Your task to perform on an android device: install app "Yahoo Mail" Image 0: 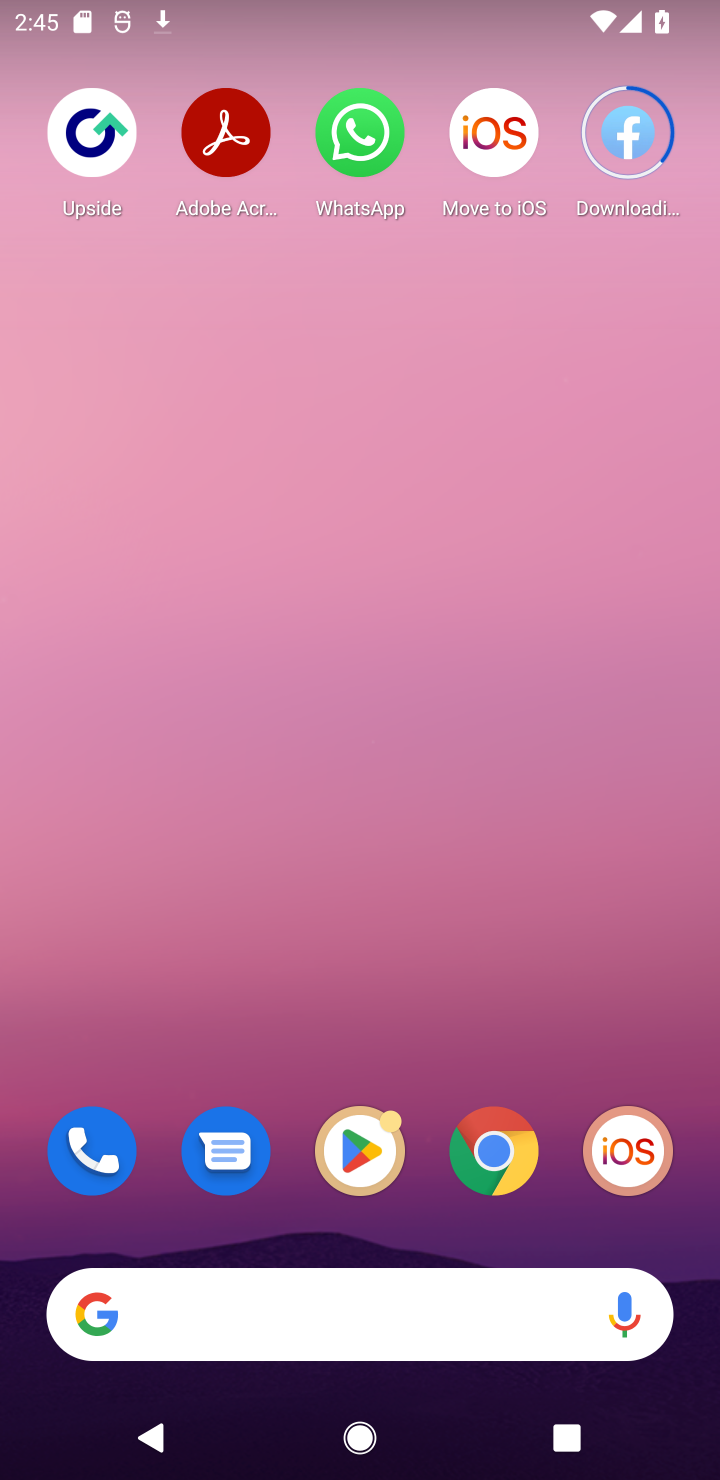
Step 0: click (347, 1161)
Your task to perform on an android device: install app "Yahoo Mail" Image 1: 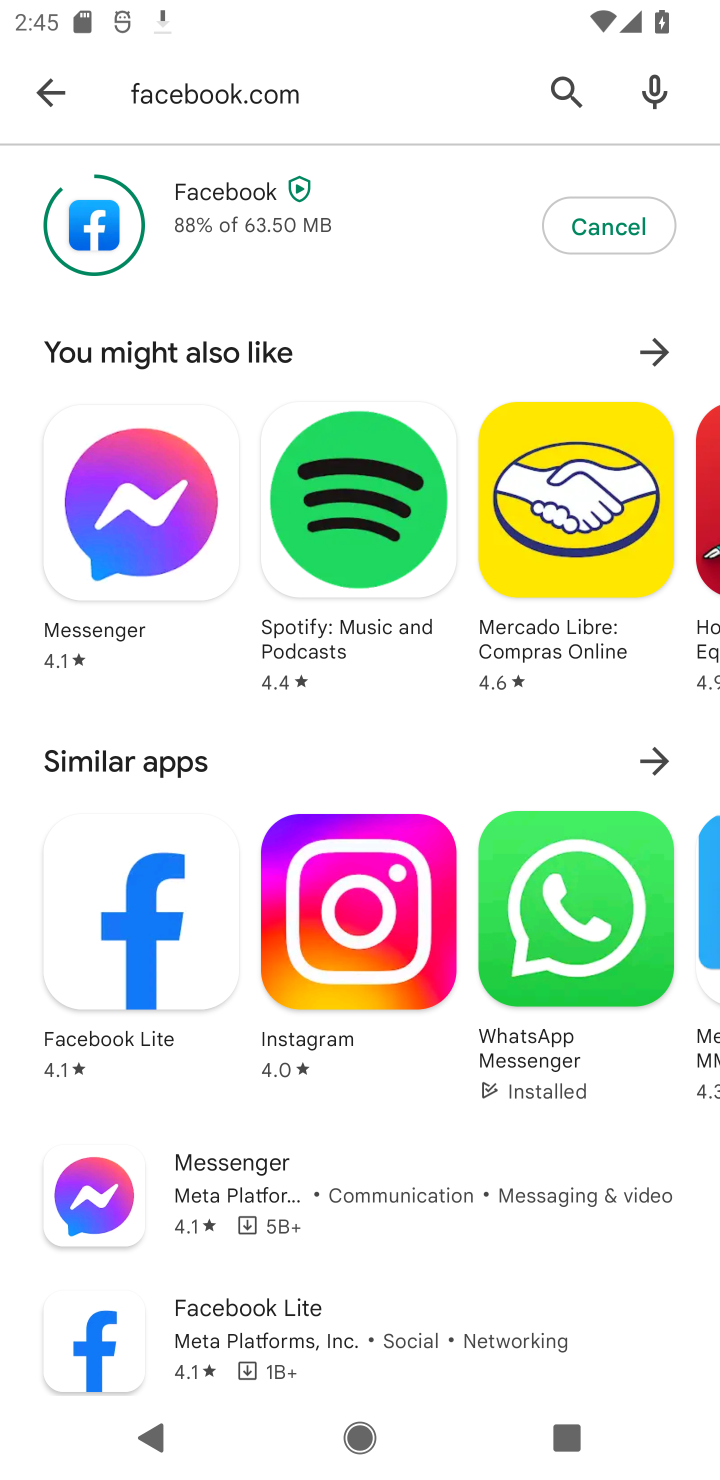
Step 1: click (561, 114)
Your task to perform on an android device: install app "Yahoo Mail" Image 2: 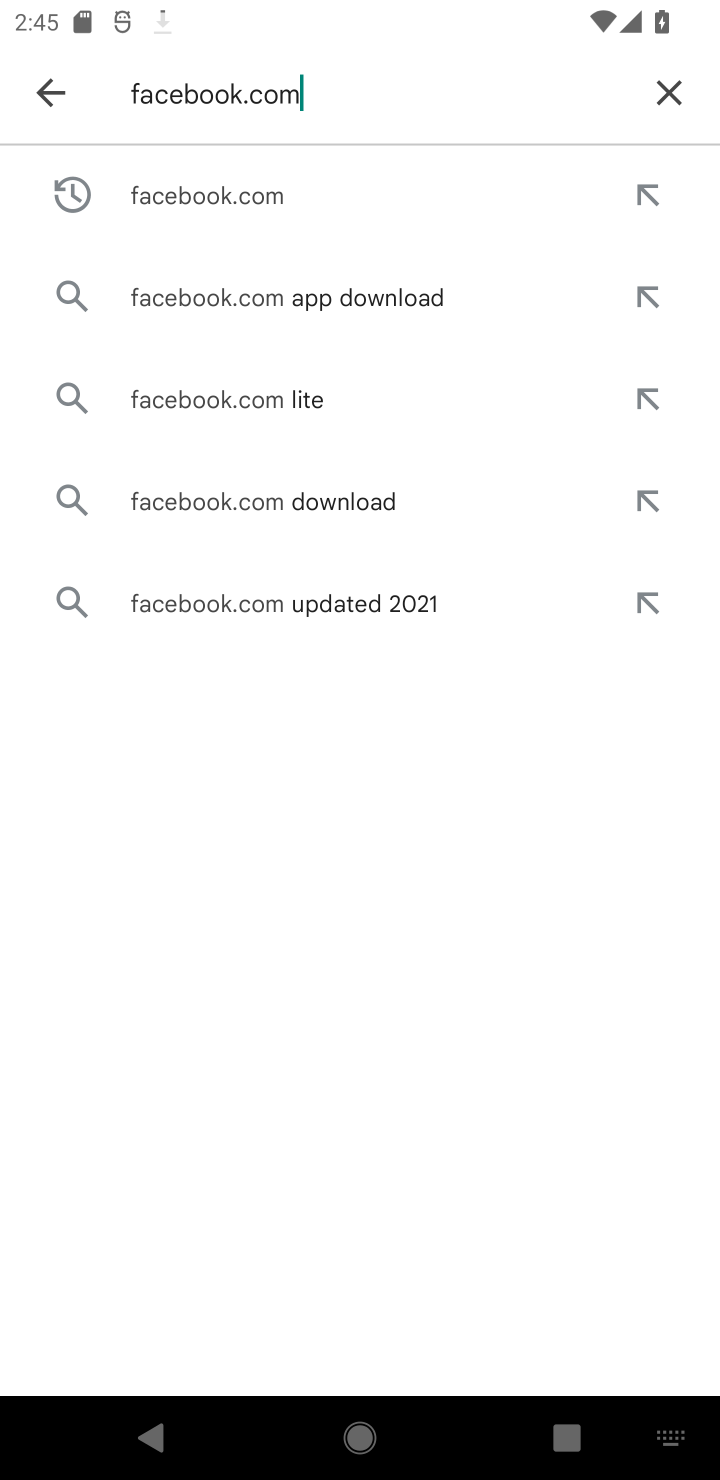
Step 2: click (693, 79)
Your task to perform on an android device: install app "Yahoo Mail" Image 3: 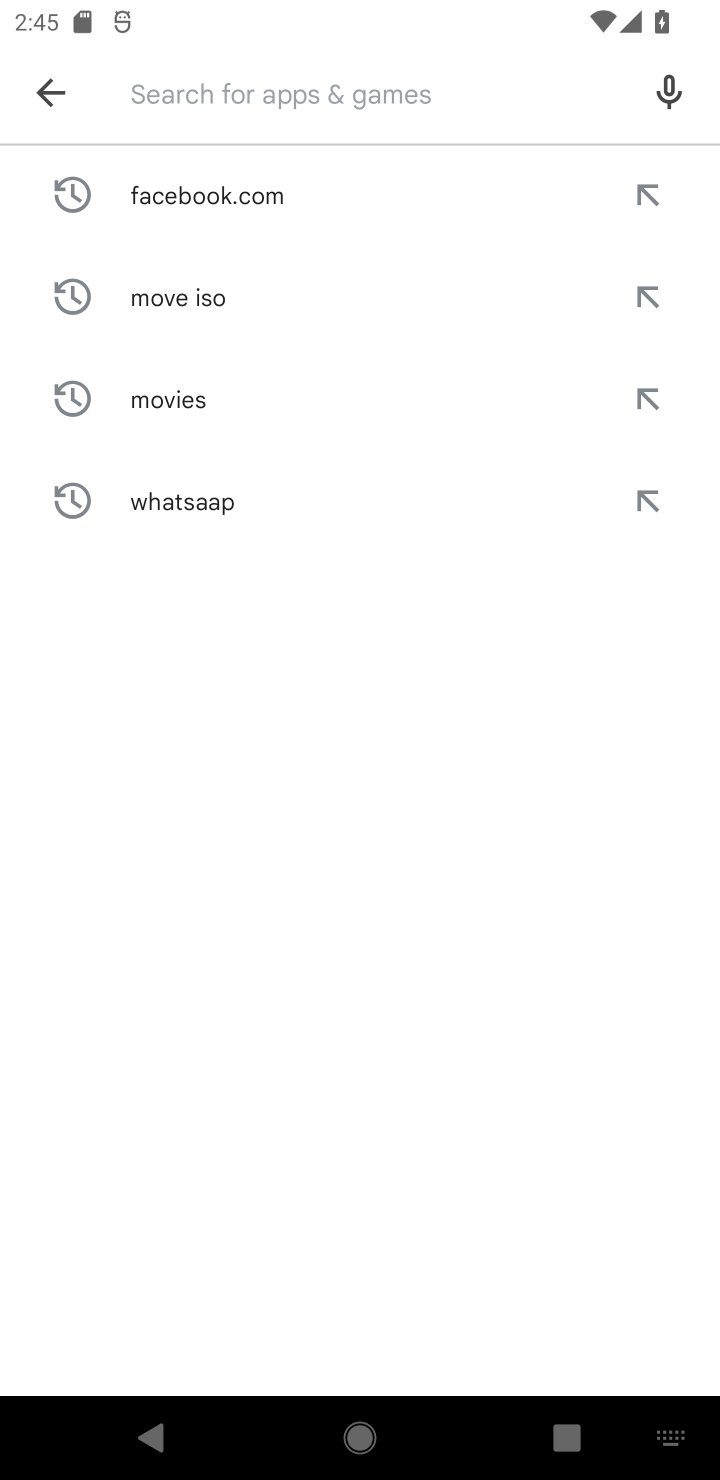
Step 3: type "yahoo mail"
Your task to perform on an android device: install app "Yahoo Mail" Image 4: 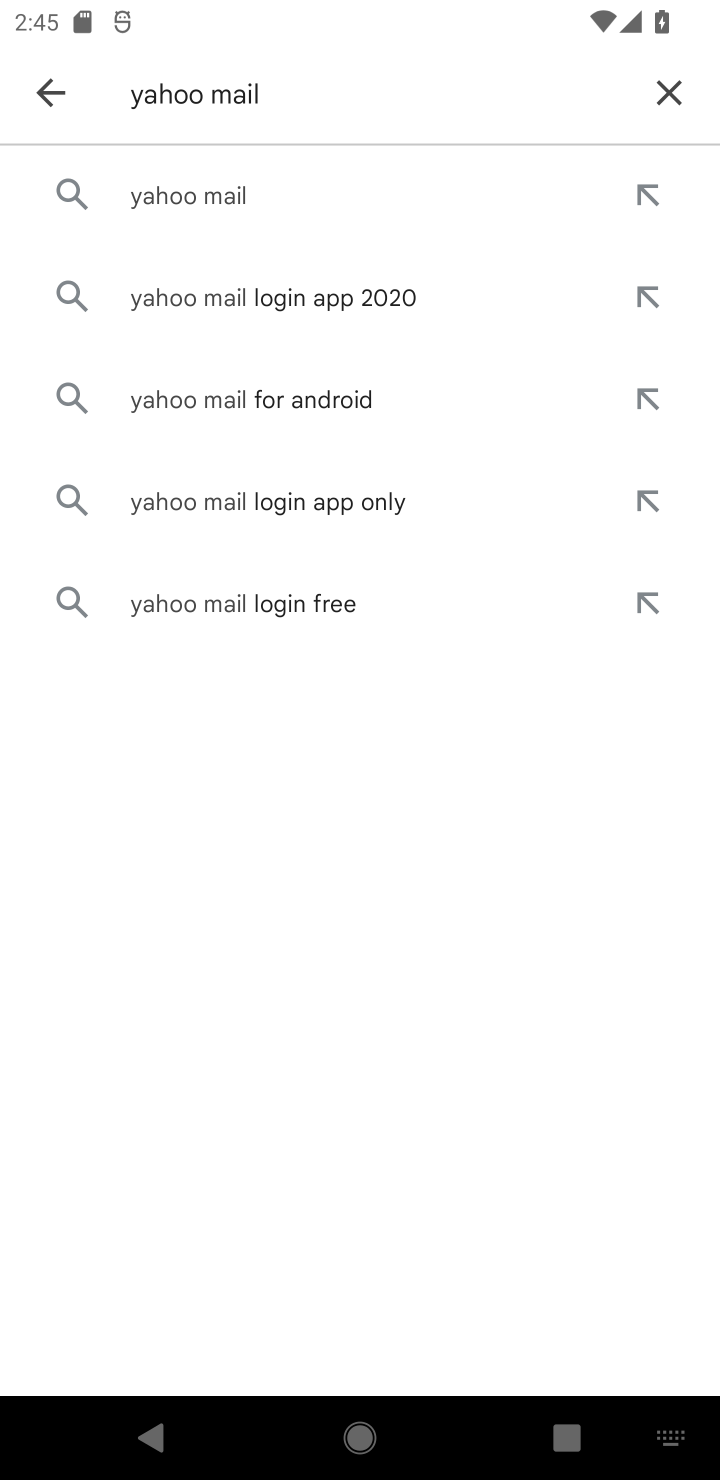
Step 4: click (267, 212)
Your task to perform on an android device: install app "Yahoo Mail" Image 5: 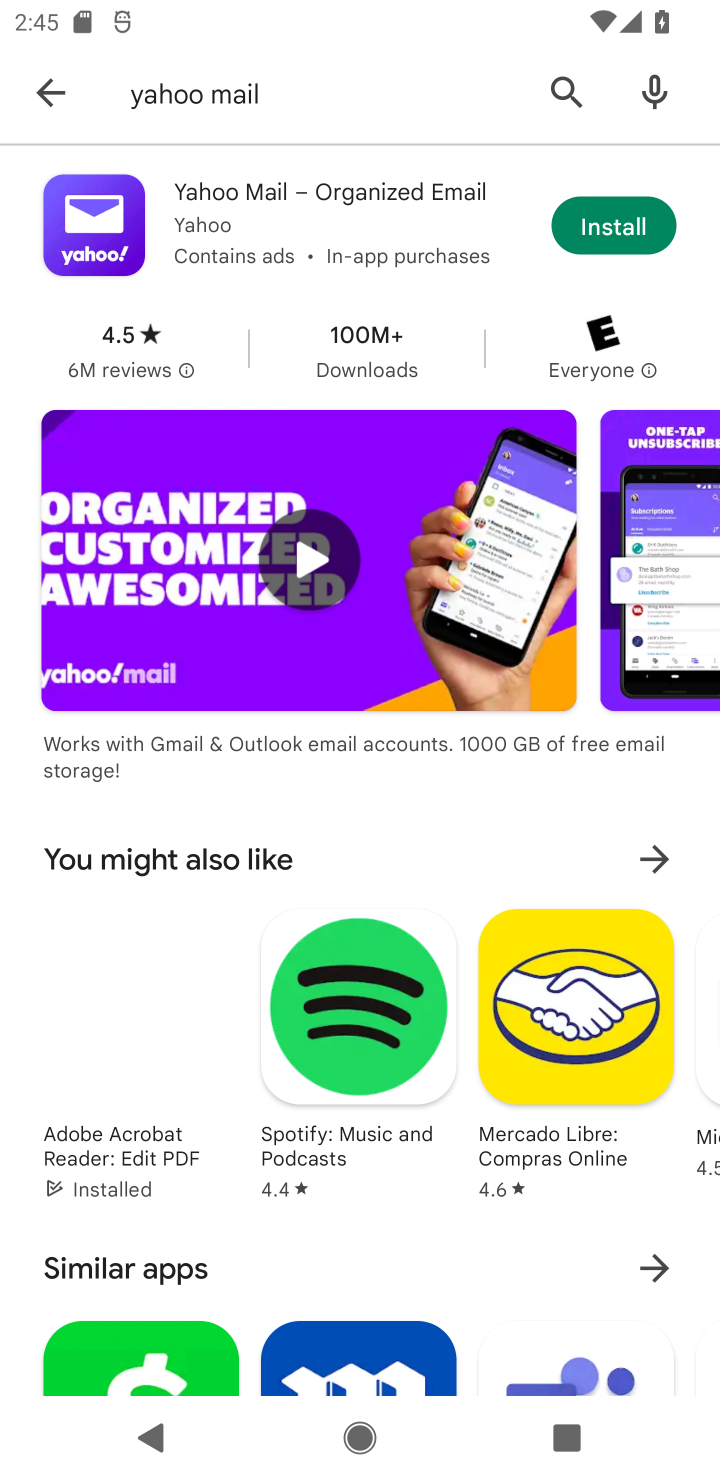
Step 5: click (598, 206)
Your task to perform on an android device: install app "Yahoo Mail" Image 6: 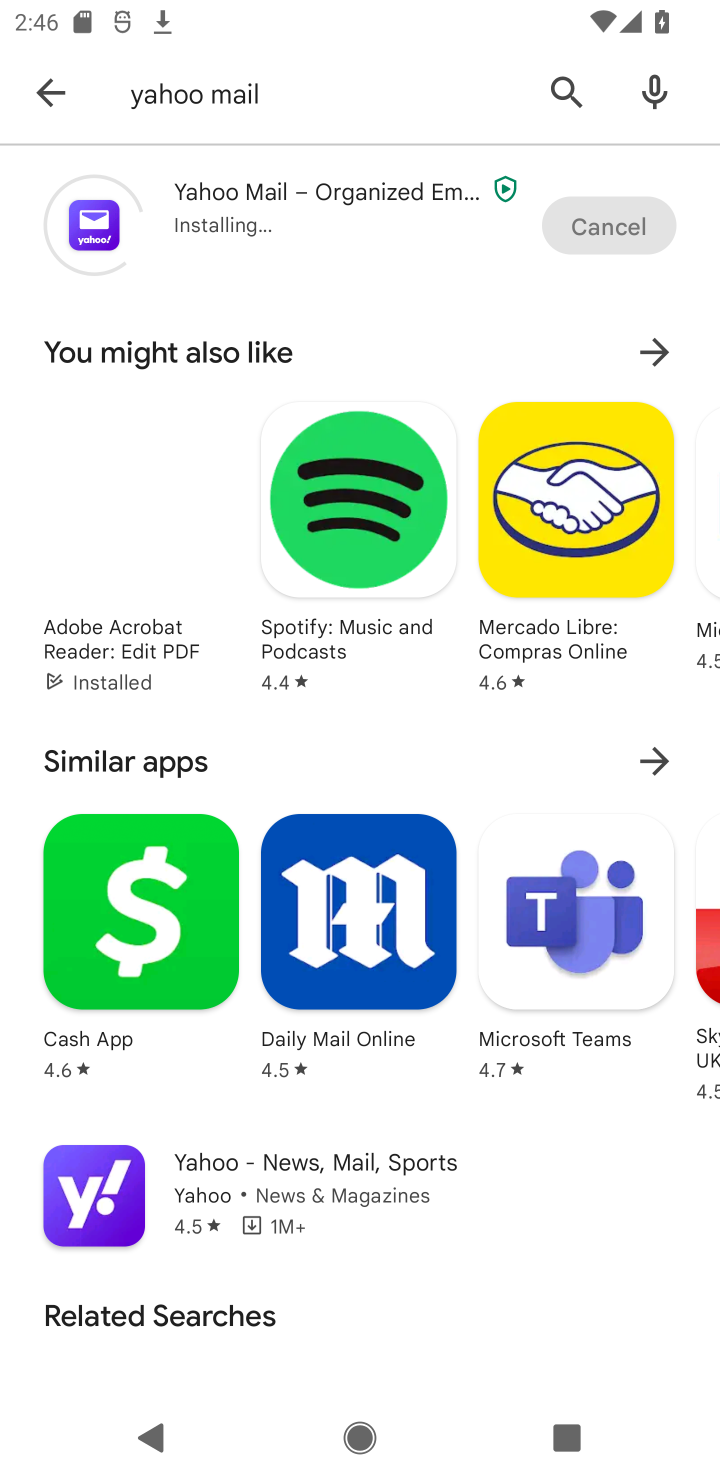
Step 6: task complete